Your task to perform on an android device: turn off wifi Image 0: 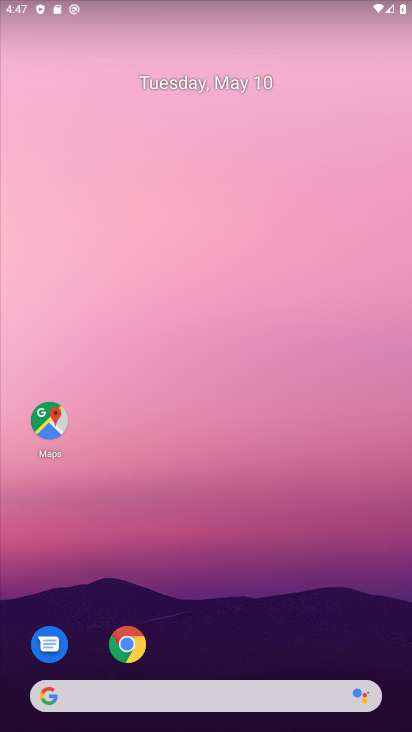
Step 0: drag from (188, 11) to (180, 682)
Your task to perform on an android device: turn off wifi Image 1: 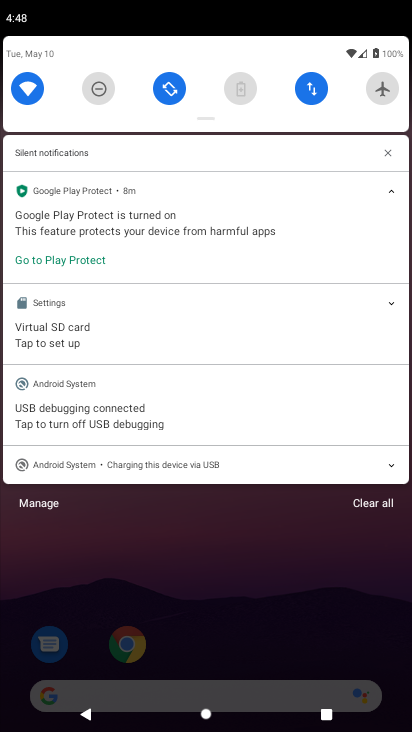
Step 1: click (28, 95)
Your task to perform on an android device: turn off wifi Image 2: 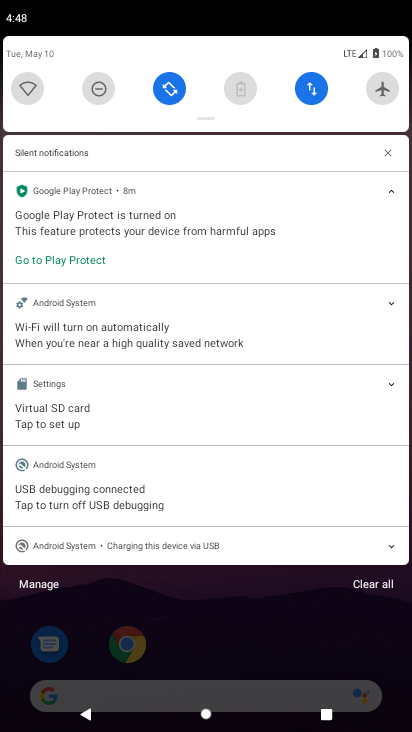
Step 2: task complete